Your task to perform on an android device: Go to sound settings Image 0: 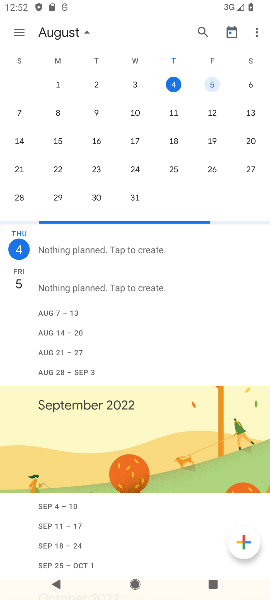
Step 0: press home button
Your task to perform on an android device: Go to sound settings Image 1: 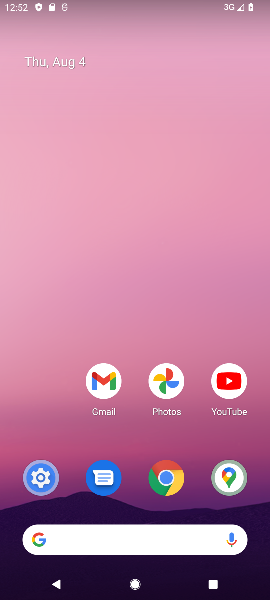
Step 1: drag from (146, 451) to (165, 16)
Your task to perform on an android device: Go to sound settings Image 2: 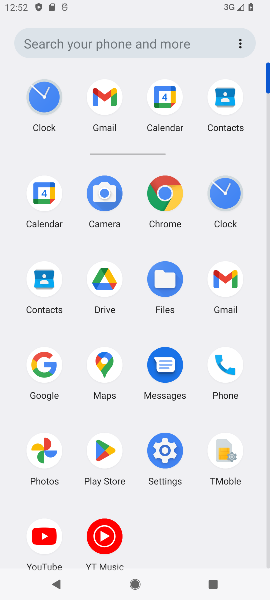
Step 2: click (184, 446)
Your task to perform on an android device: Go to sound settings Image 3: 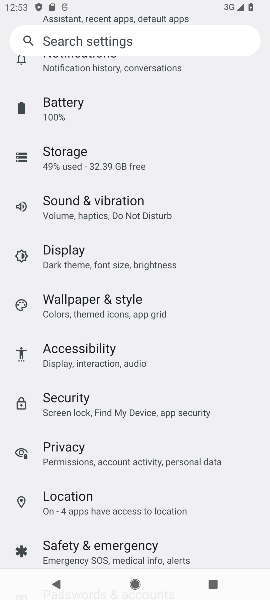
Step 3: drag from (164, 226) to (144, 500)
Your task to perform on an android device: Go to sound settings Image 4: 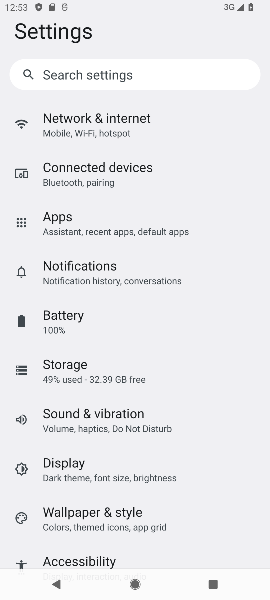
Step 4: drag from (93, 455) to (120, 143)
Your task to perform on an android device: Go to sound settings Image 5: 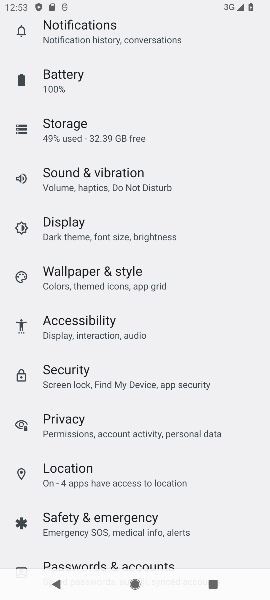
Step 5: click (59, 178)
Your task to perform on an android device: Go to sound settings Image 6: 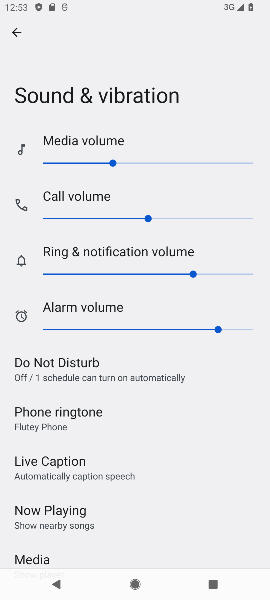
Step 6: task complete